Your task to perform on an android device: Go to Android settings Image 0: 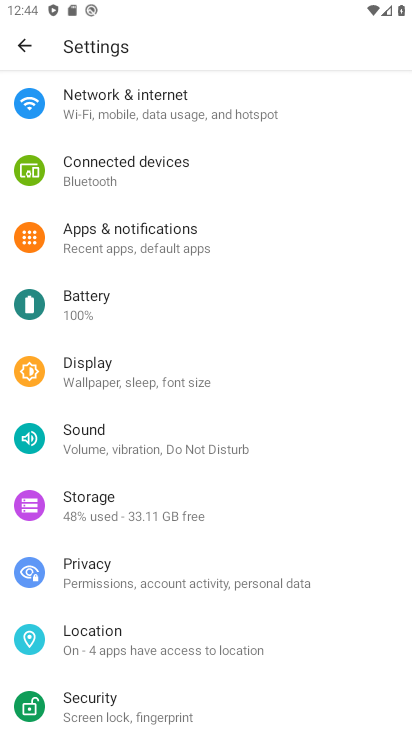
Step 0: drag from (165, 356) to (160, 33)
Your task to perform on an android device: Go to Android settings Image 1: 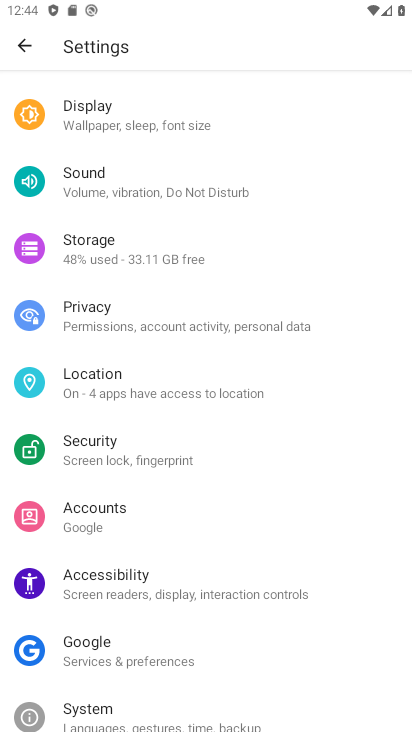
Step 1: drag from (157, 664) to (180, 269)
Your task to perform on an android device: Go to Android settings Image 2: 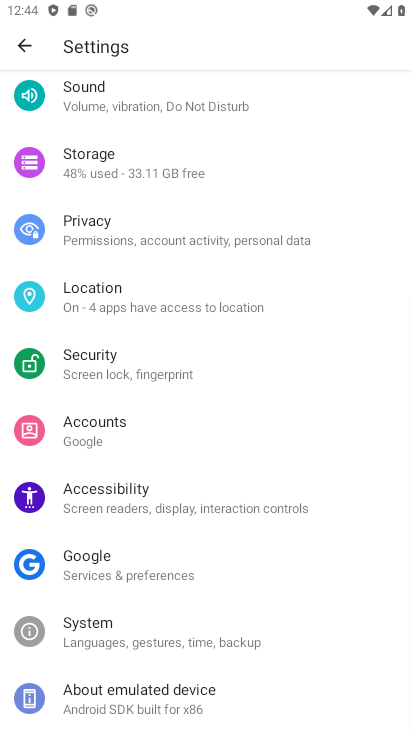
Step 2: click (136, 688)
Your task to perform on an android device: Go to Android settings Image 3: 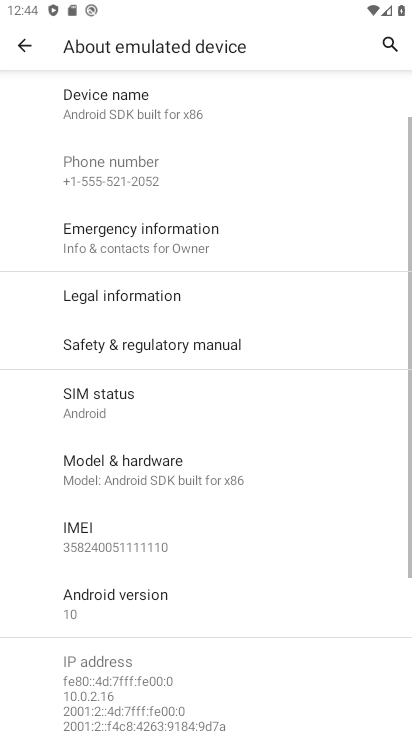
Step 3: click (89, 597)
Your task to perform on an android device: Go to Android settings Image 4: 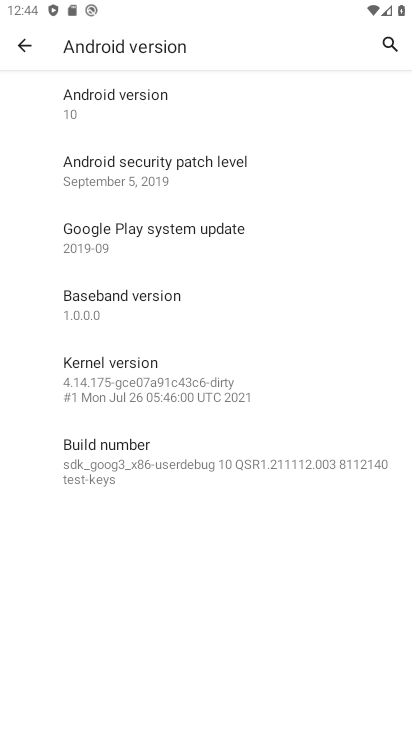
Step 4: task complete